Your task to perform on an android device: Turn off the flashlight Image 0: 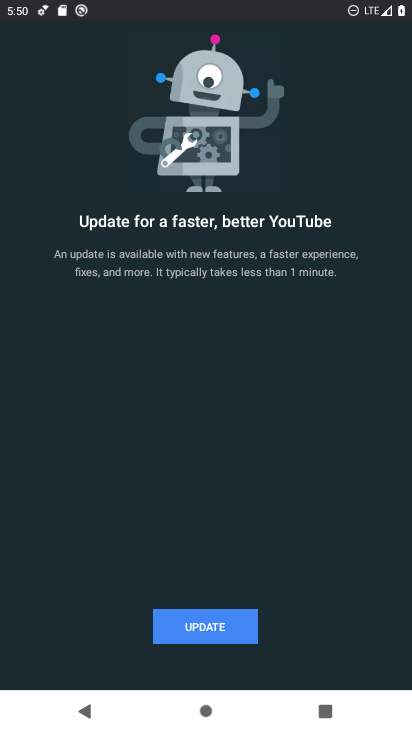
Step 0: press home button
Your task to perform on an android device: Turn off the flashlight Image 1: 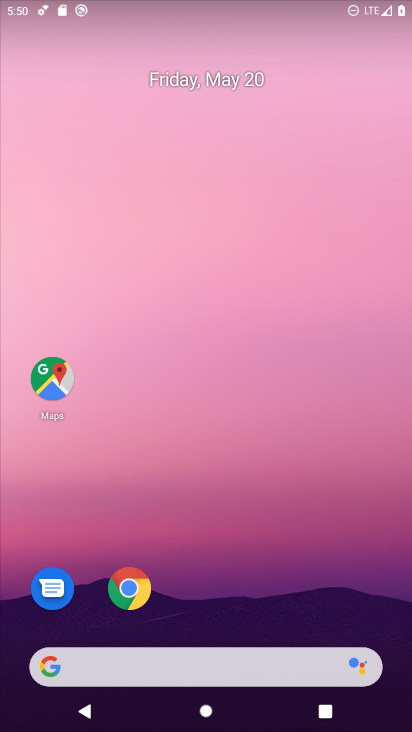
Step 1: task complete